Your task to perform on an android device: clear all cookies in the chrome app Image 0: 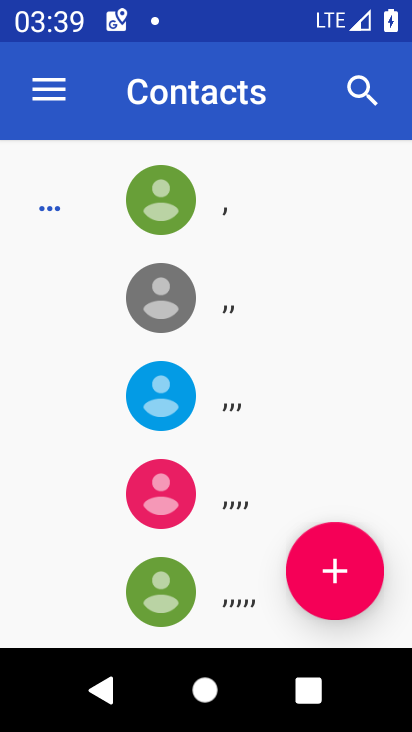
Step 0: press home button
Your task to perform on an android device: clear all cookies in the chrome app Image 1: 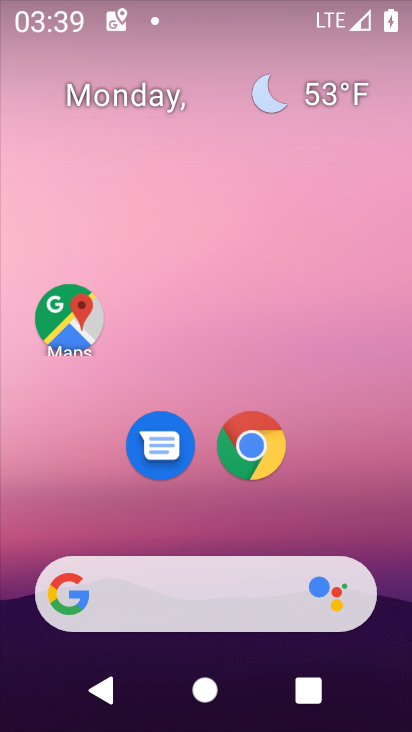
Step 1: click (263, 463)
Your task to perform on an android device: clear all cookies in the chrome app Image 2: 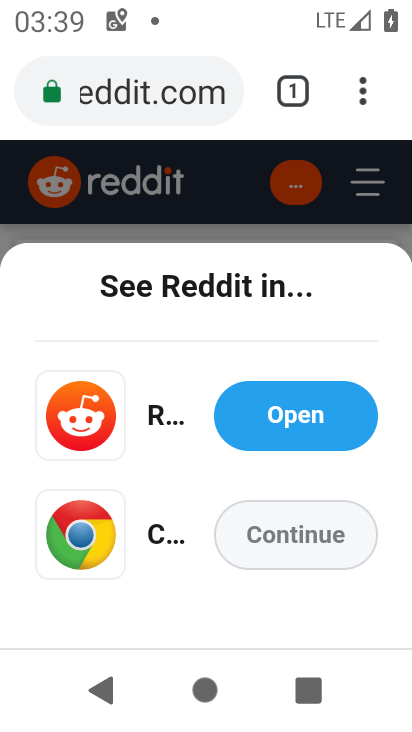
Step 2: click (360, 90)
Your task to perform on an android device: clear all cookies in the chrome app Image 3: 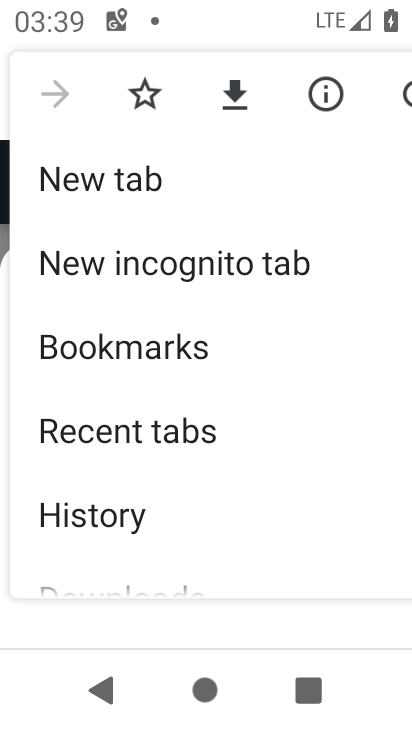
Step 3: click (107, 510)
Your task to perform on an android device: clear all cookies in the chrome app Image 4: 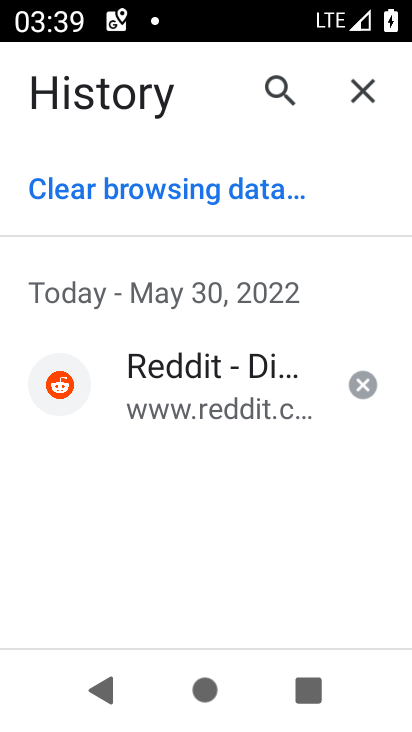
Step 4: click (205, 188)
Your task to perform on an android device: clear all cookies in the chrome app Image 5: 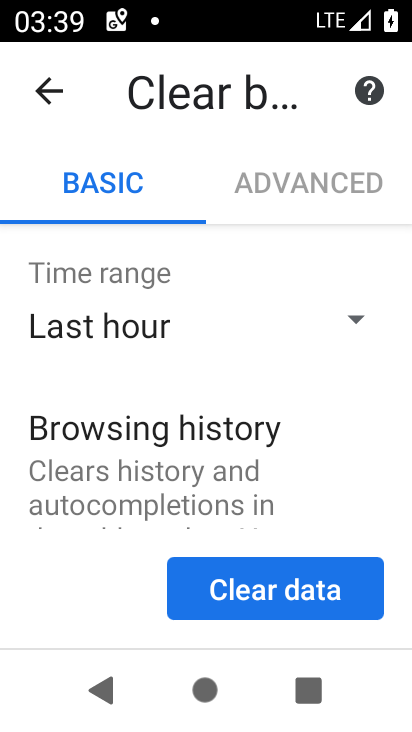
Step 5: drag from (203, 469) to (206, 190)
Your task to perform on an android device: clear all cookies in the chrome app Image 6: 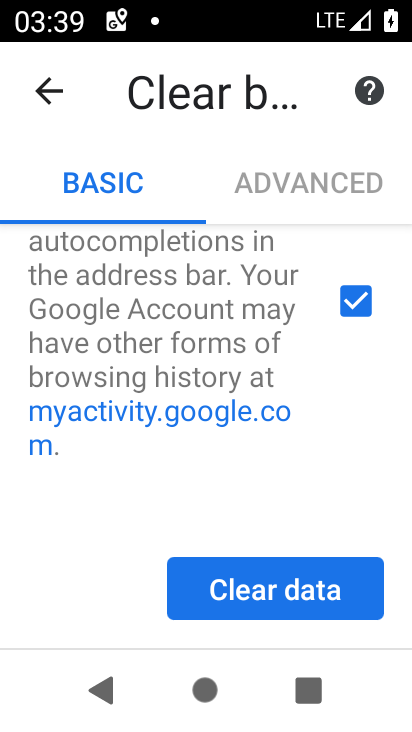
Step 6: click (359, 306)
Your task to perform on an android device: clear all cookies in the chrome app Image 7: 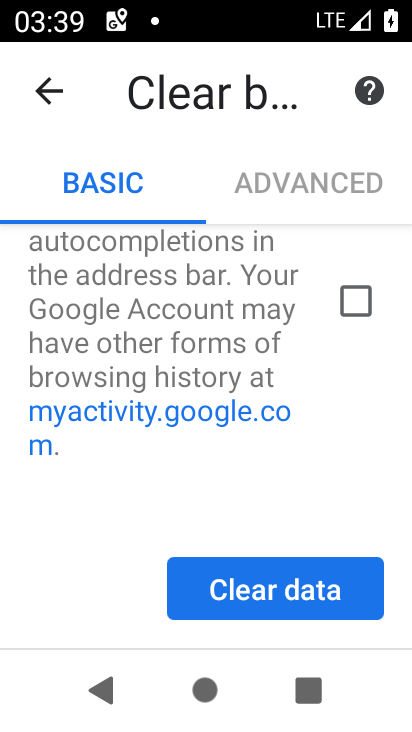
Step 7: drag from (249, 496) to (263, 191)
Your task to perform on an android device: clear all cookies in the chrome app Image 8: 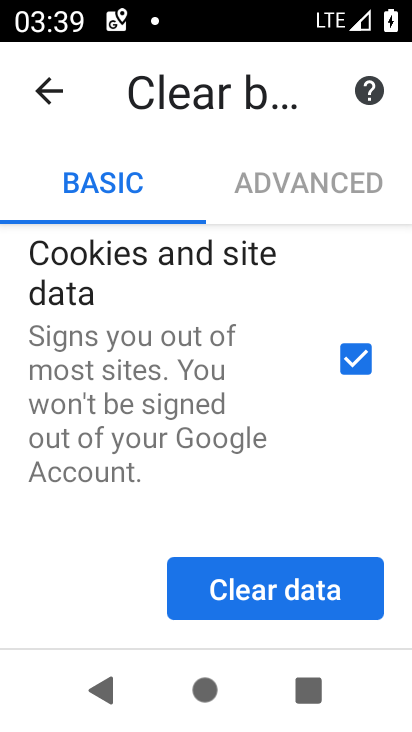
Step 8: drag from (266, 569) to (323, 6)
Your task to perform on an android device: clear all cookies in the chrome app Image 9: 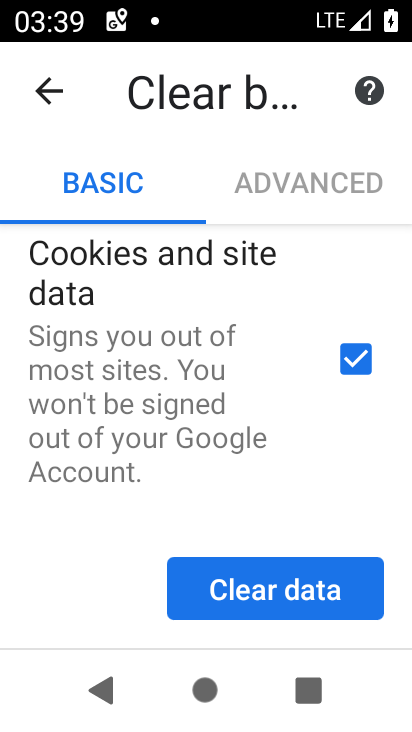
Step 9: click (287, 581)
Your task to perform on an android device: clear all cookies in the chrome app Image 10: 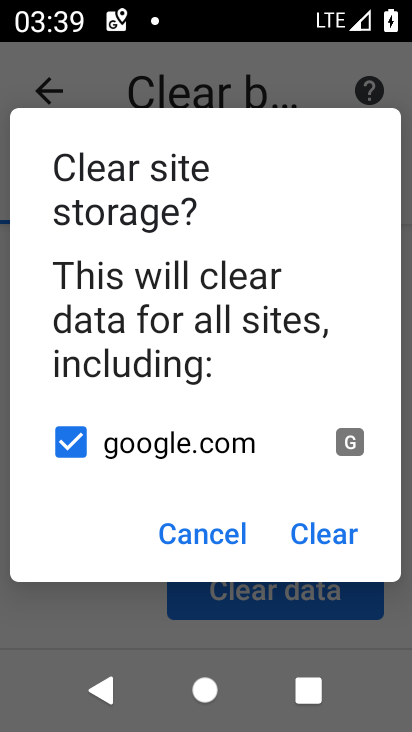
Step 10: click (343, 531)
Your task to perform on an android device: clear all cookies in the chrome app Image 11: 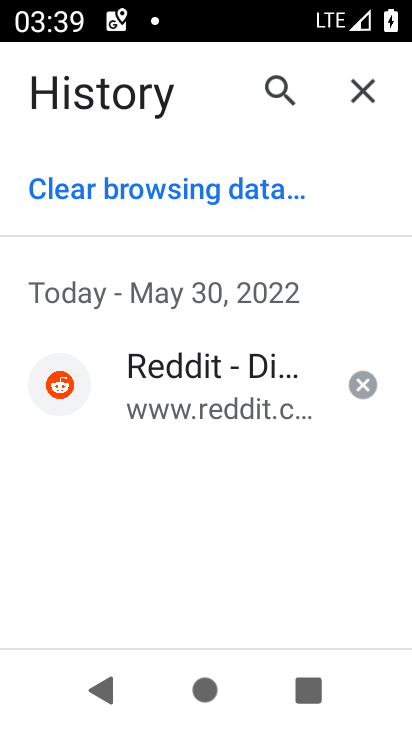
Step 11: task complete